Your task to perform on an android device: Show me productivity apps on the Play Store Image 0: 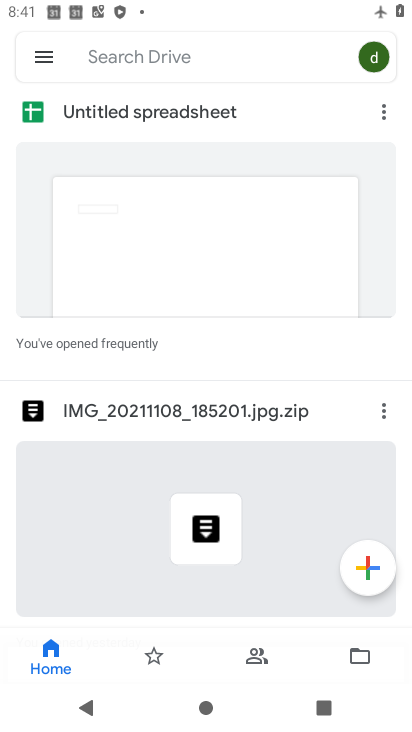
Step 0: press home button
Your task to perform on an android device: Show me productivity apps on the Play Store Image 1: 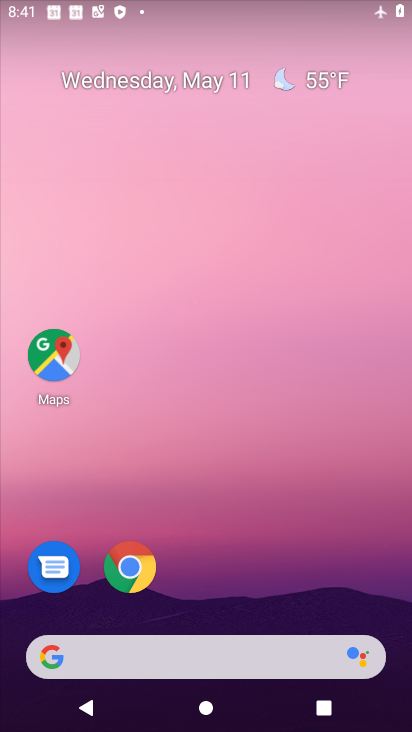
Step 1: drag from (204, 588) to (278, 6)
Your task to perform on an android device: Show me productivity apps on the Play Store Image 2: 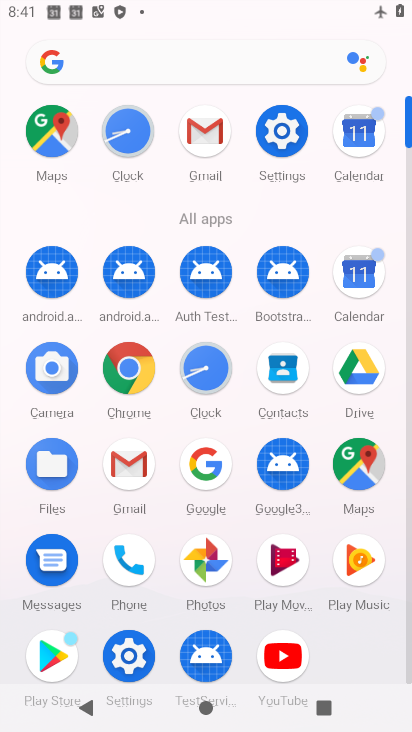
Step 2: click (38, 660)
Your task to perform on an android device: Show me productivity apps on the Play Store Image 3: 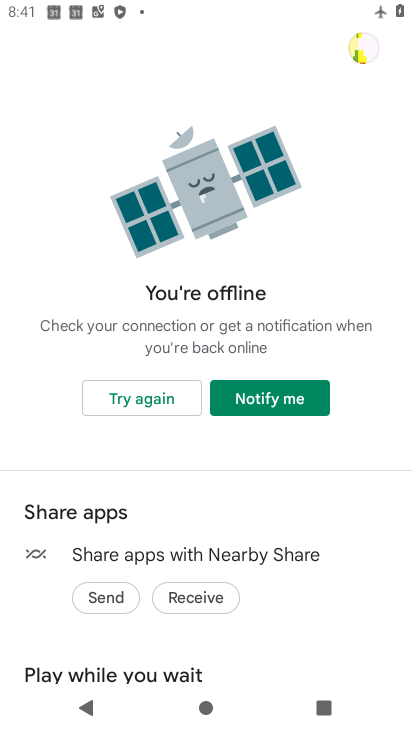
Step 3: click (174, 401)
Your task to perform on an android device: Show me productivity apps on the Play Store Image 4: 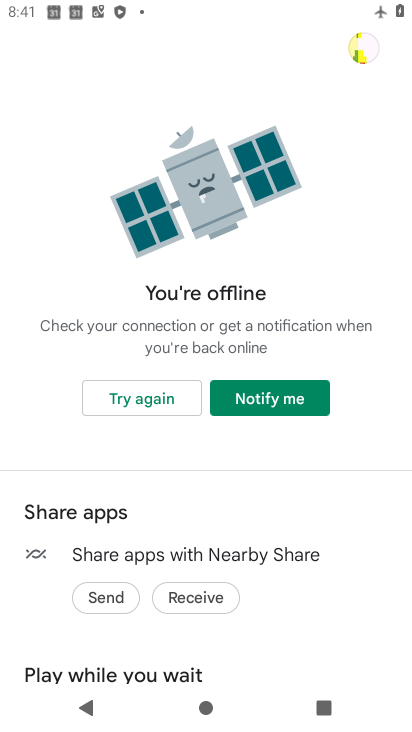
Step 4: click (174, 401)
Your task to perform on an android device: Show me productivity apps on the Play Store Image 5: 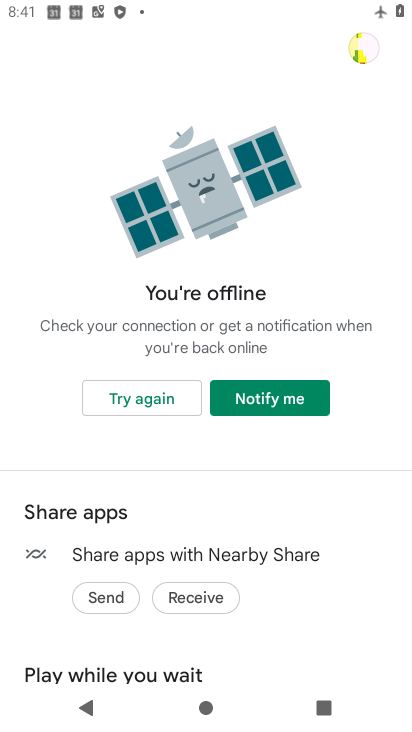
Step 5: task complete